Your task to perform on an android device: find which apps use the phone's location Image 0: 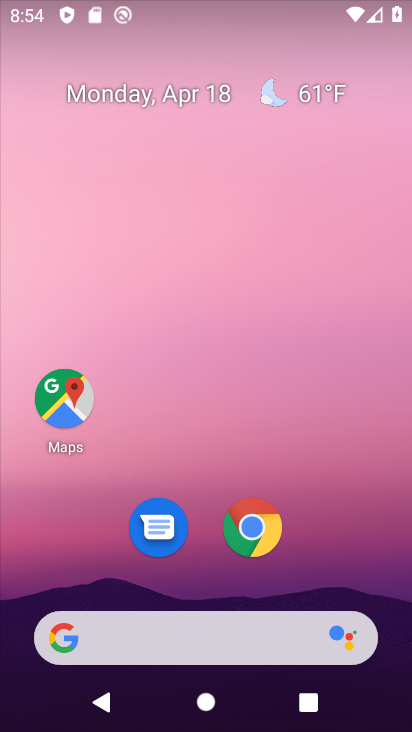
Step 0: drag from (214, 9) to (195, 477)
Your task to perform on an android device: find which apps use the phone's location Image 1: 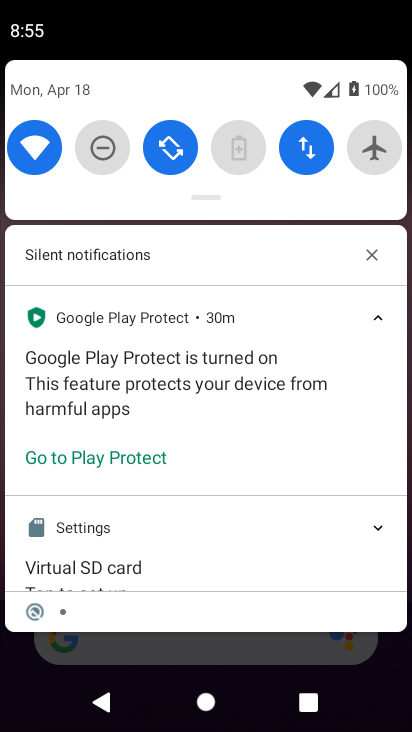
Step 1: drag from (207, 71) to (65, 626)
Your task to perform on an android device: find which apps use the phone's location Image 2: 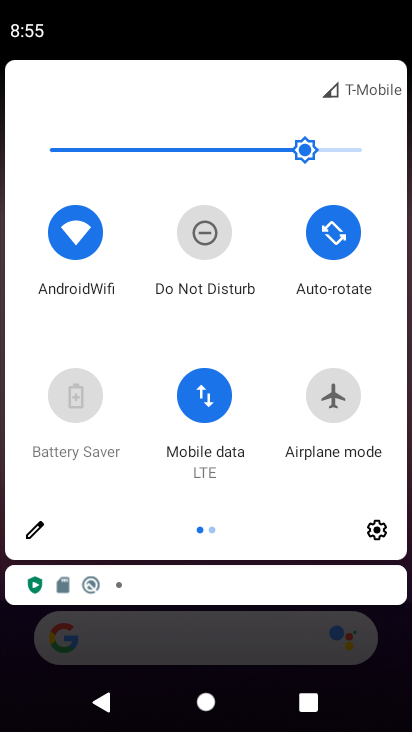
Step 2: click (364, 505)
Your task to perform on an android device: find which apps use the phone's location Image 3: 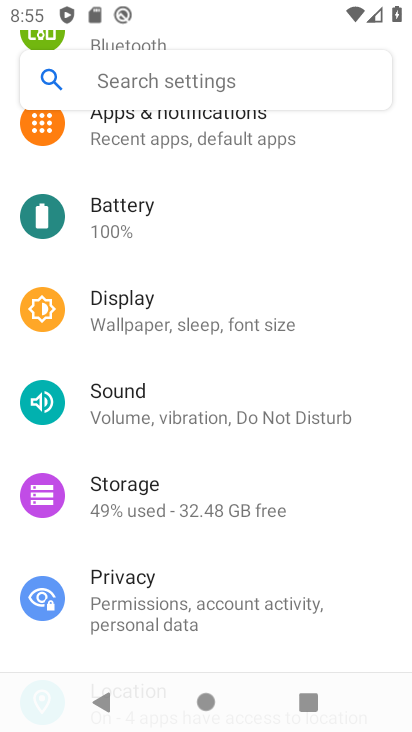
Step 3: drag from (208, 160) to (157, 593)
Your task to perform on an android device: find which apps use the phone's location Image 4: 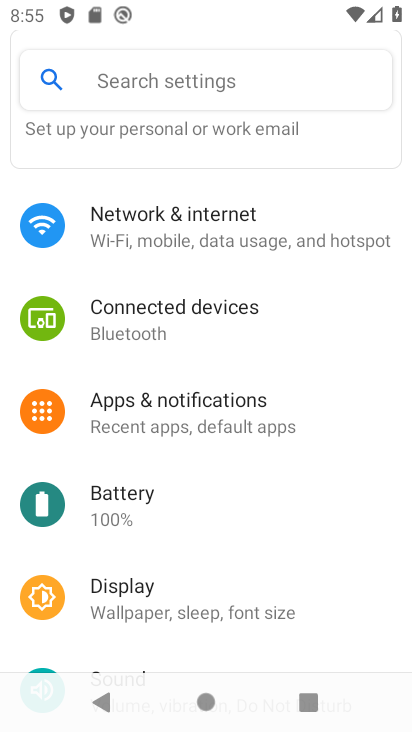
Step 4: drag from (174, 647) to (292, 183)
Your task to perform on an android device: find which apps use the phone's location Image 5: 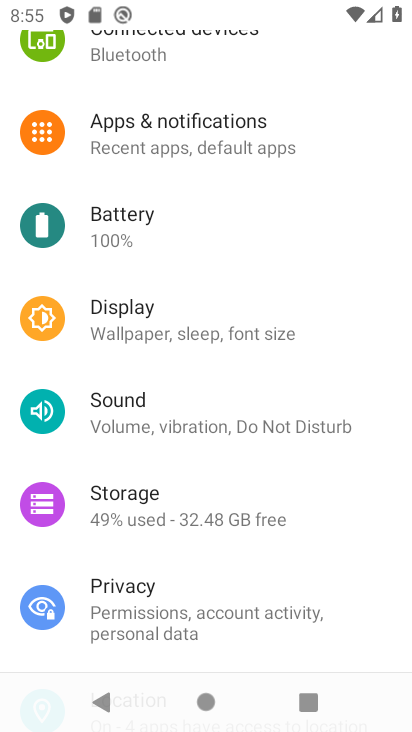
Step 5: drag from (205, 643) to (251, 275)
Your task to perform on an android device: find which apps use the phone's location Image 6: 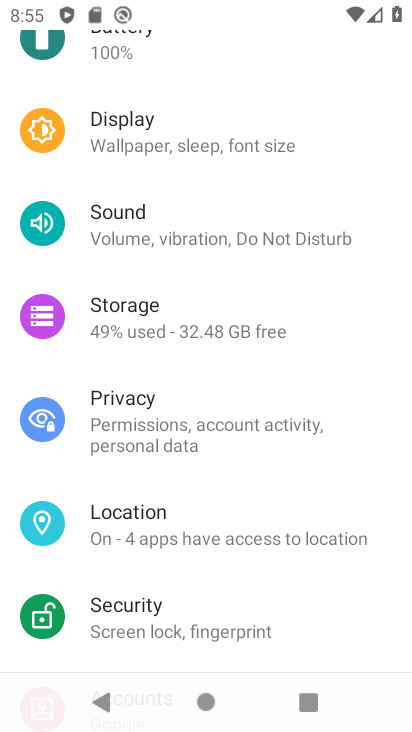
Step 6: click (153, 508)
Your task to perform on an android device: find which apps use the phone's location Image 7: 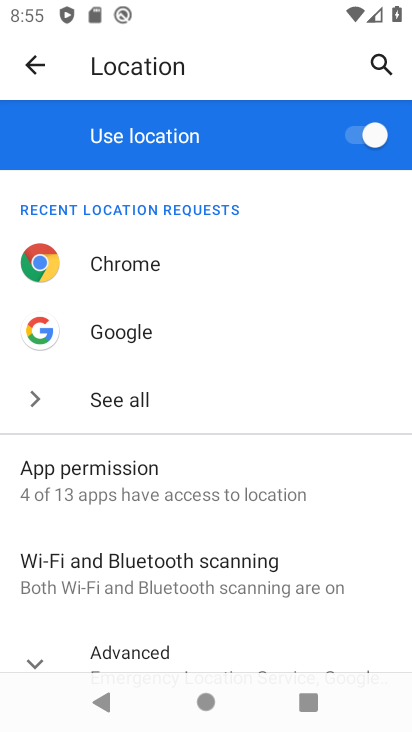
Step 7: drag from (136, 570) to (262, 100)
Your task to perform on an android device: find which apps use the phone's location Image 8: 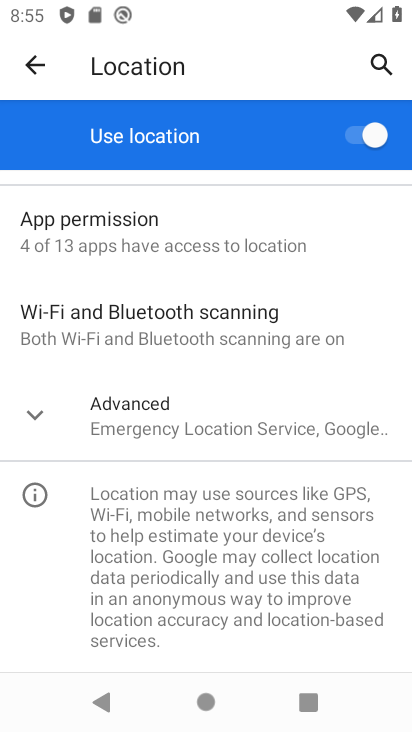
Step 8: drag from (249, 207) to (184, 628)
Your task to perform on an android device: find which apps use the phone's location Image 9: 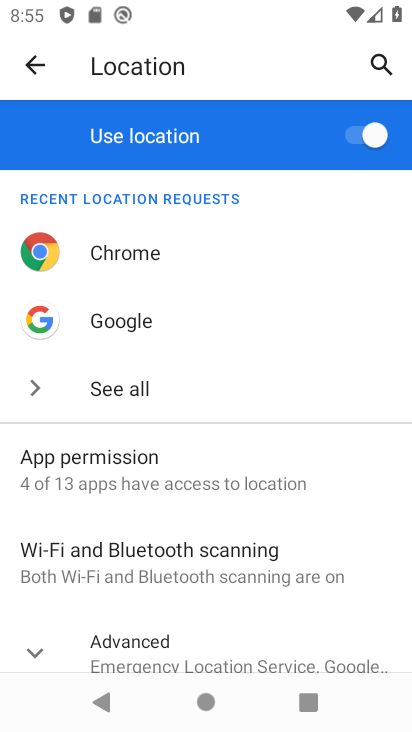
Step 9: click (175, 393)
Your task to perform on an android device: find which apps use the phone's location Image 10: 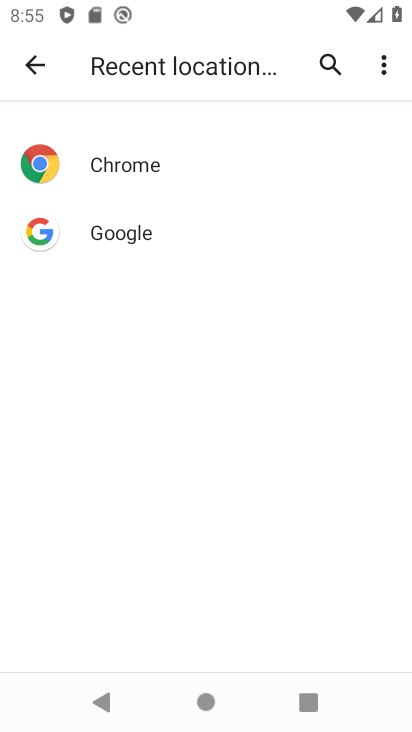
Step 10: task complete